Your task to perform on an android device: Go to settings Image 0: 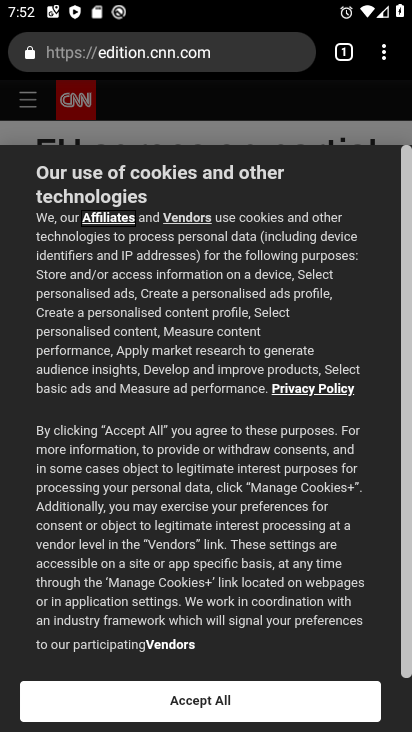
Step 0: press home button
Your task to perform on an android device: Go to settings Image 1: 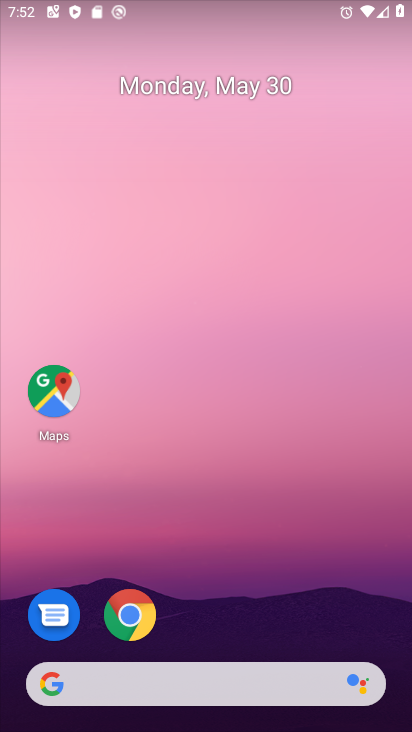
Step 1: drag from (322, 568) to (354, 75)
Your task to perform on an android device: Go to settings Image 2: 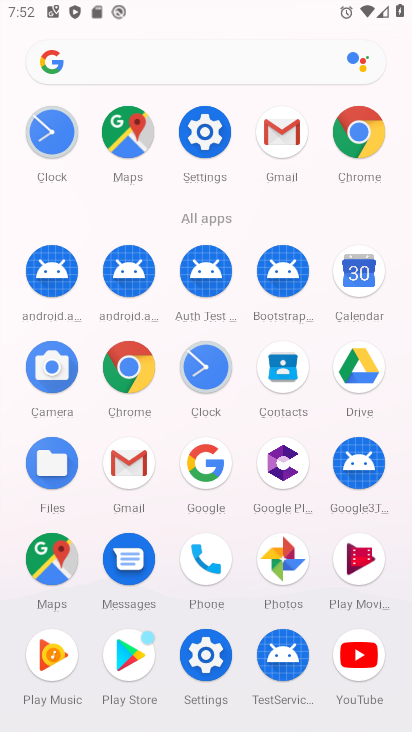
Step 2: click (189, 127)
Your task to perform on an android device: Go to settings Image 3: 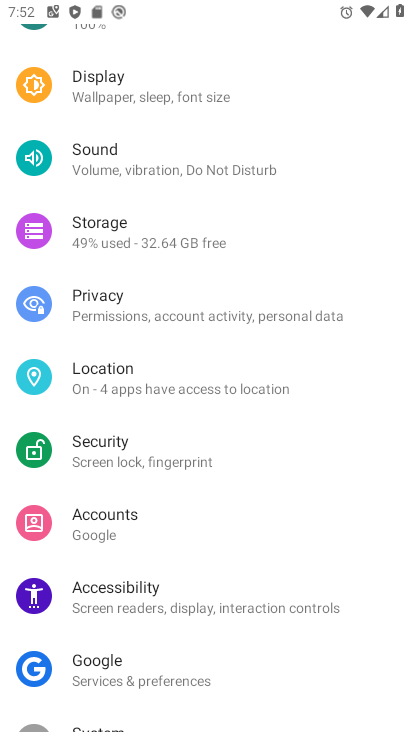
Step 3: task complete